Your task to perform on an android device: toggle improve location accuracy Image 0: 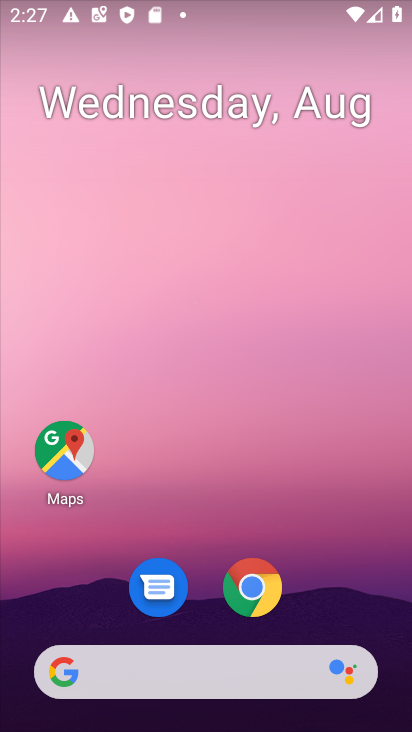
Step 0: drag from (21, 660) to (294, 78)
Your task to perform on an android device: toggle improve location accuracy Image 1: 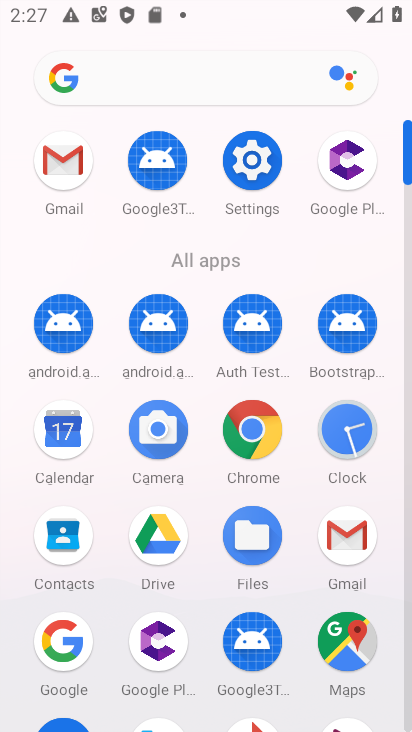
Step 1: click (253, 151)
Your task to perform on an android device: toggle improve location accuracy Image 2: 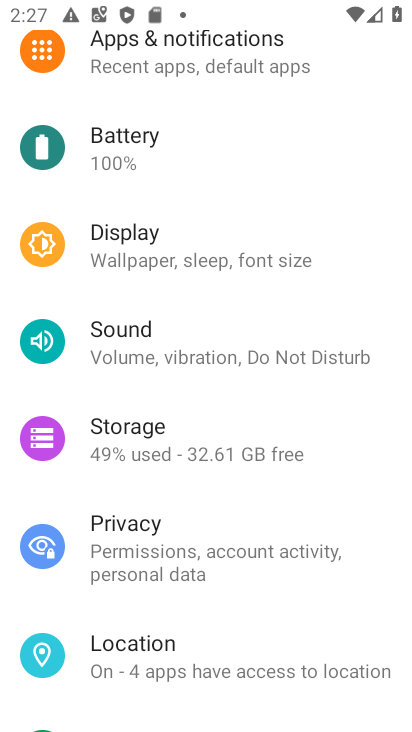
Step 2: click (84, 662)
Your task to perform on an android device: toggle improve location accuracy Image 3: 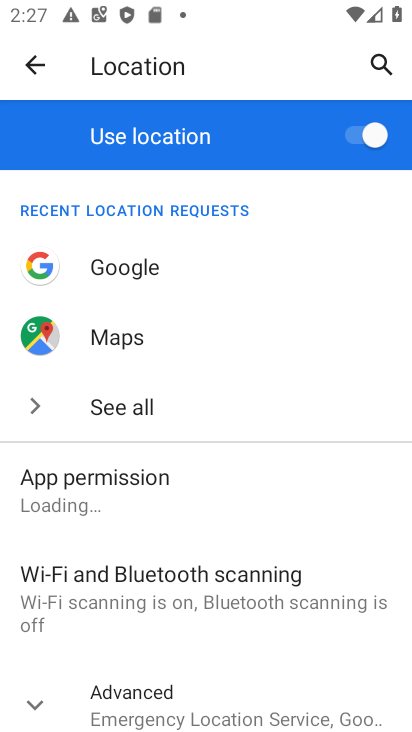
Step 3: drag from (16, 525) to (143, 211)
Your task to perform on an android device: toggle improve location accuracy Image 4: 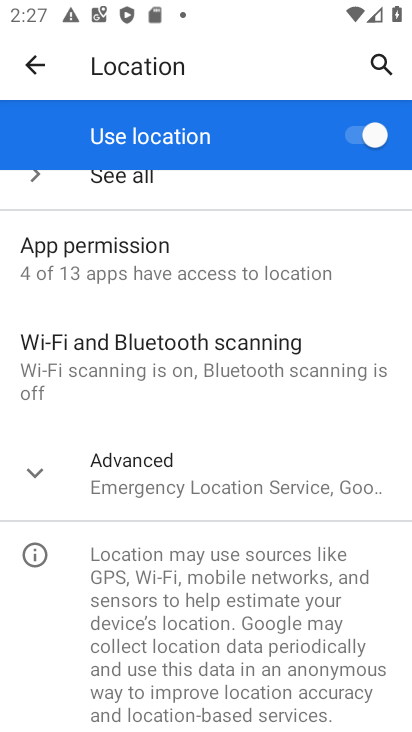
Step 4: click (24, 469)
Your task to perform on an android device: toggle improve location accuracy Image 5: 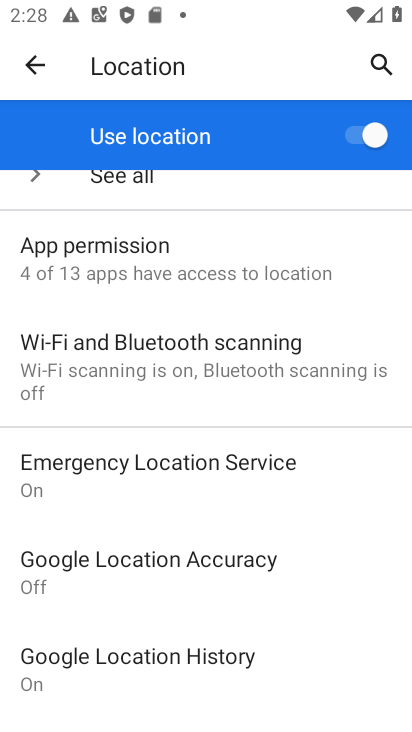
Step 5: click (150, 565)
Your task to perform on an android device: toggle improve location accuracy Image 6: 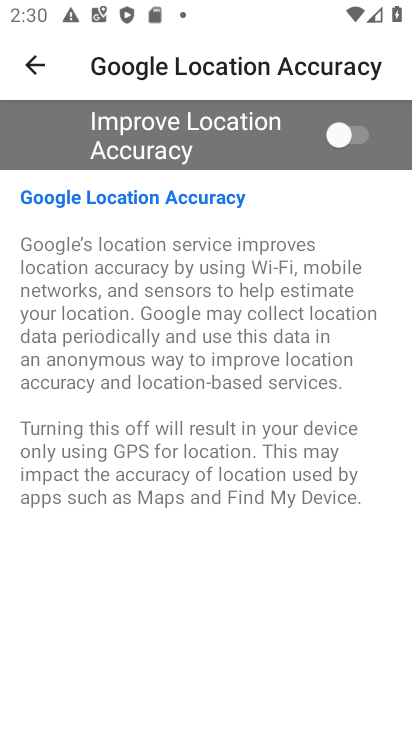
Step 6: task complete